Your task to perform on an android device: toggle javascript in the chrome app Image 0: 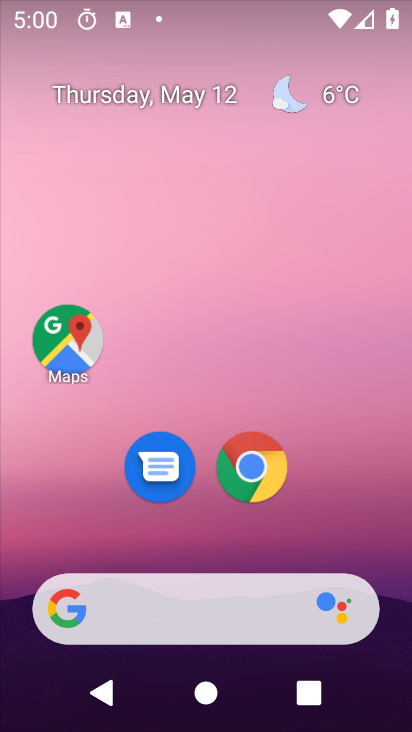
Step 0: drag from (301, 651) to (263, 124)
Your task to perform on an android device: toggle javascript in the chrome app Image 1: 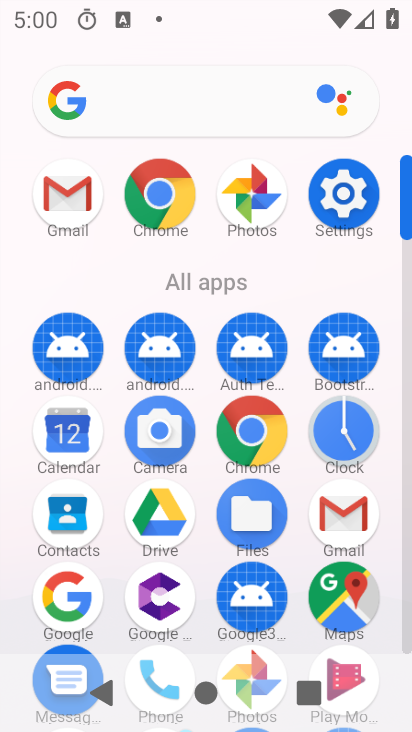
Step 1: click (246, 431)
Your task to perform on an android device: toggle javascript in the chrome app Image 2: 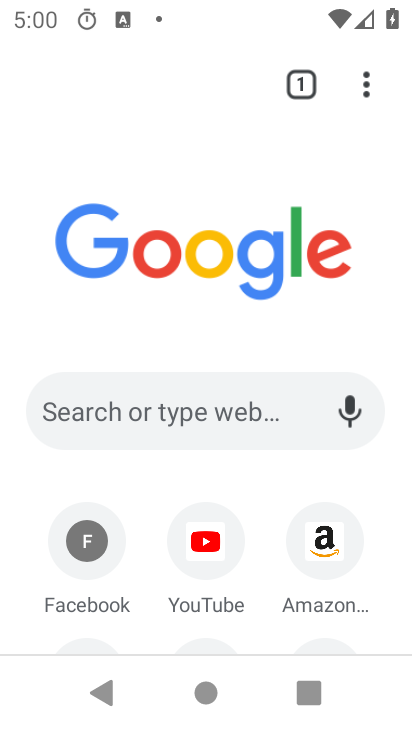
Step 2: drag from (350, 65) to (169, 534)
Your task to perform on an android device: toggle javascript in the chrome app Image 3: 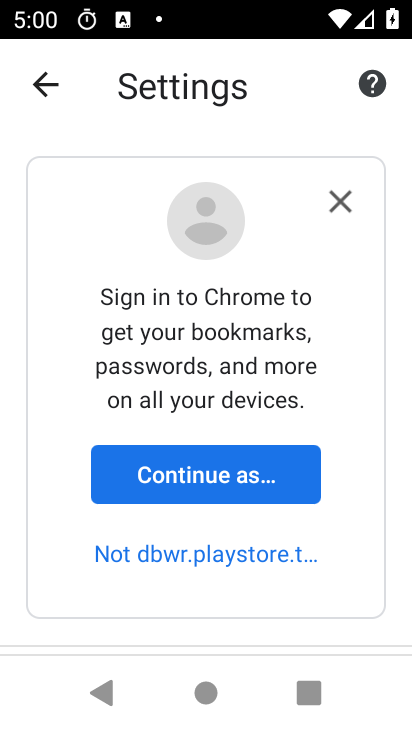
Step 3: drag from (212, 600) to (268, 56)
Your task to perform on an android device: toggle javascript in the chrome app Image 4: 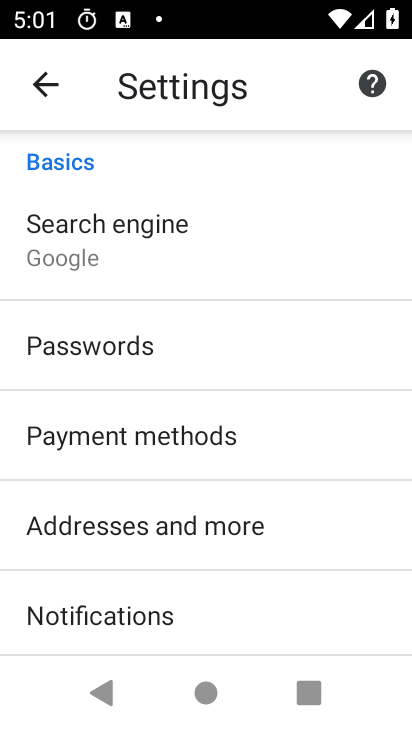
Step 4: drag from (220, 603) to (255, 170)
Your task to perform on an android device: toggle javascript in the chrome app Image 5: 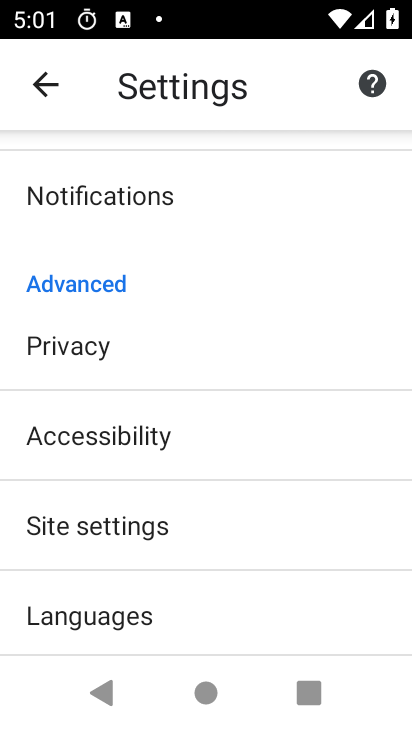
Step 5: drag from (156, 597) to (180, 111)
Your task to perform on an android device: toggle javascript in the chrome app Image 6: 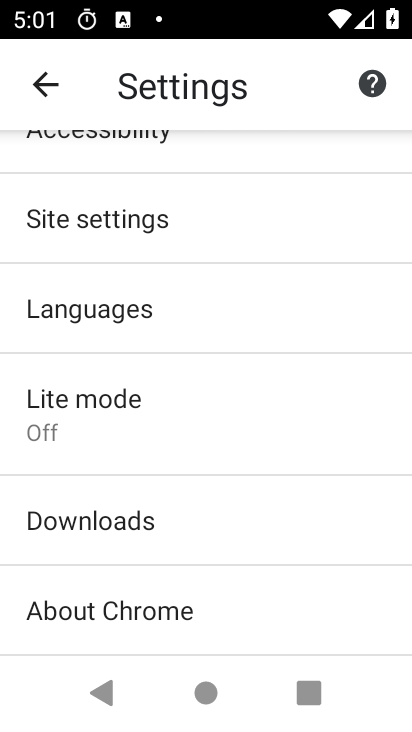
Step 6: click (211, 225)
Your task to perform on an android device: toggle javascript in the chrome app Image 7: 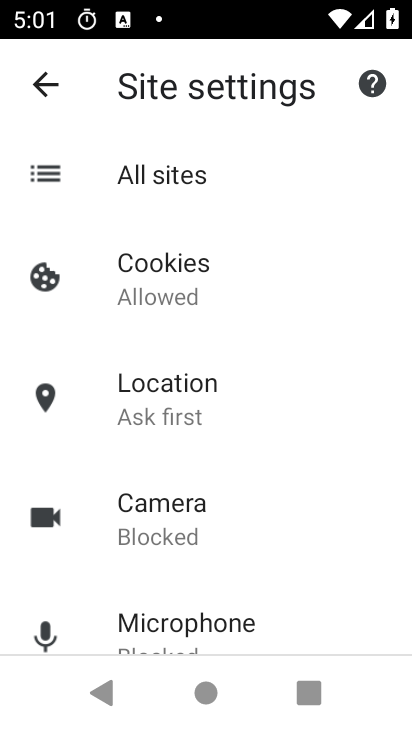
Step 7: drag from (194, 634) to (231, 126)
Your task to perform on an android device: toggle javascript in the chrome app Image 8: 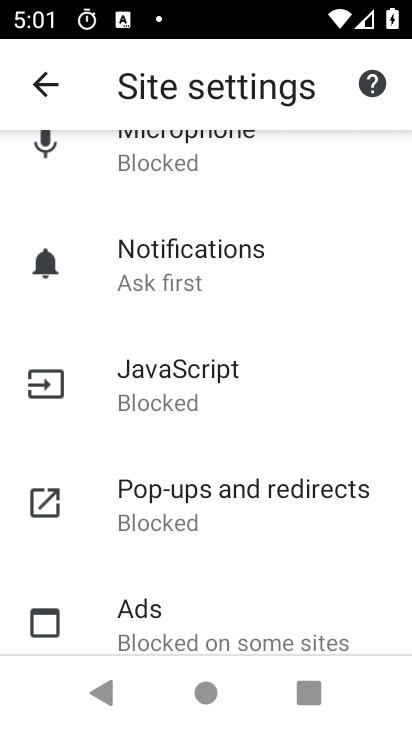
Step 8: click (201, 394)
Your task to perform on an android device: toggle javascript in the chrome app Image 9: 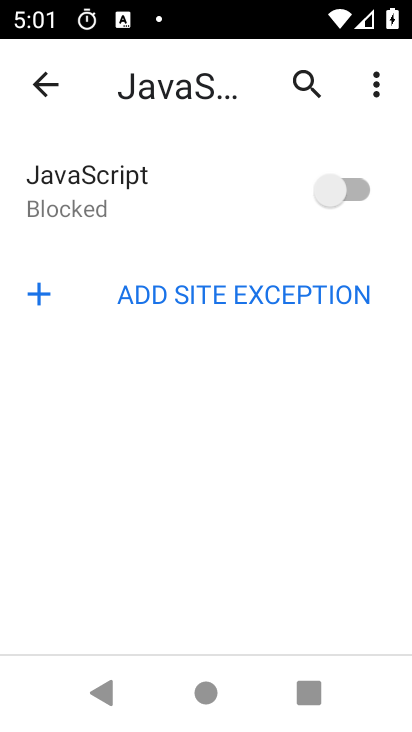
Step 9: click (361, 183)
Your task to perform on an android device: toggle javascript in the chrome app Image 10: 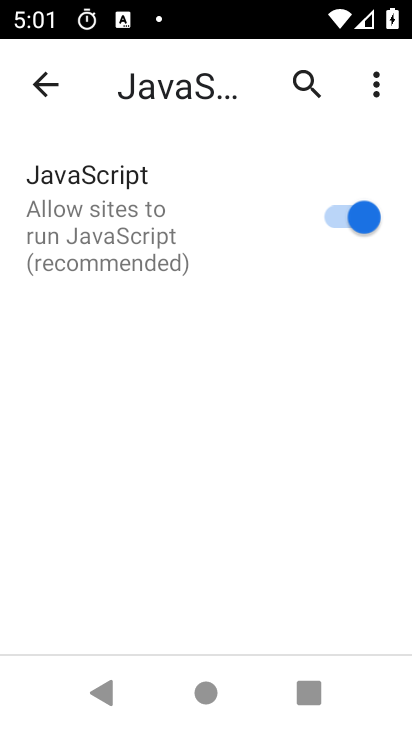
Step 10: task complete